Your task to perform on an android device: Open Google Image 0: 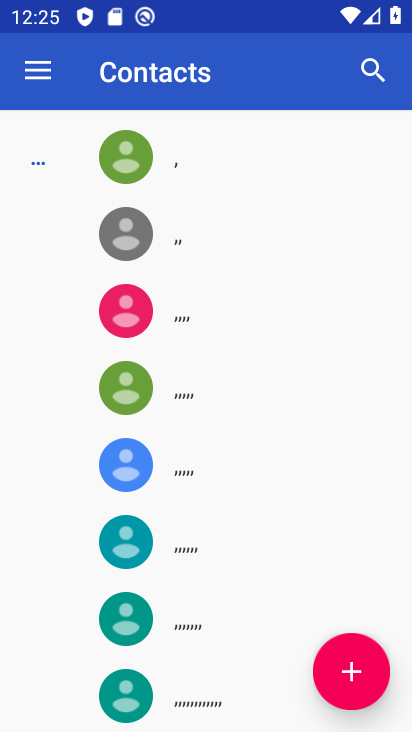
Step 0: press home button
Your task to perform on an android device: Open Google Image 1: 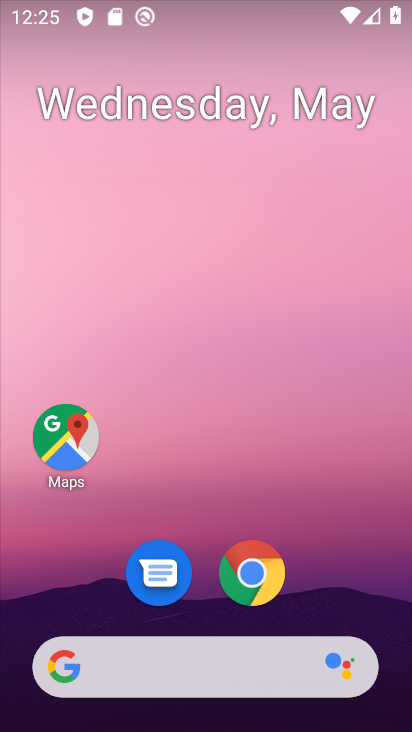
Step 1: drag from (337, 583) to (311, 84)
Your task to perform on an android device: Open Google Image 2: 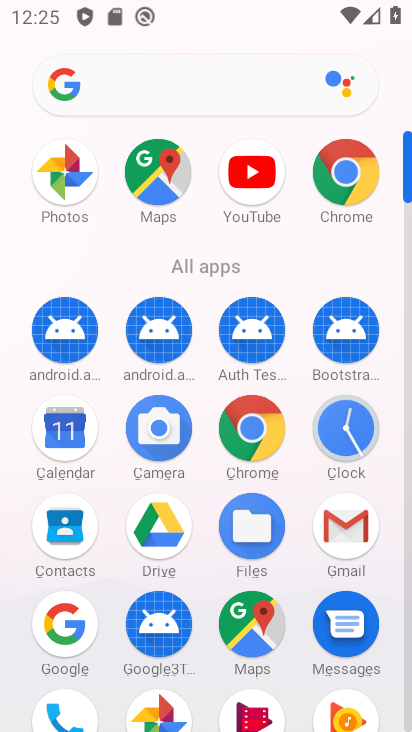
Step 2: click (70, 625)
Your task to perform on an android device: Open Google Image 3: 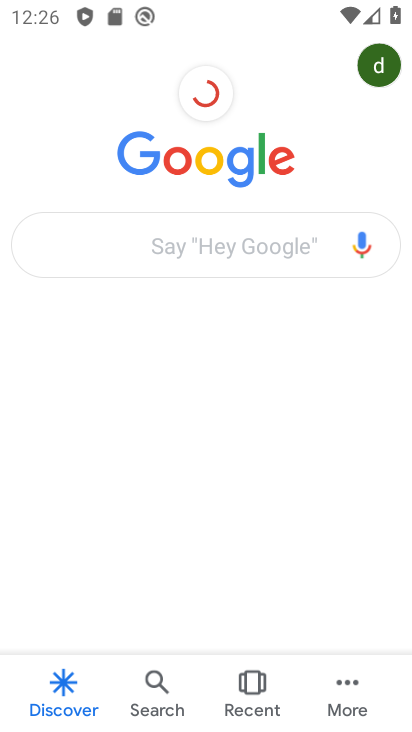
Step 3: task complete